Your task to perform on an android device: Is it going to rain this weekend? Image 0: 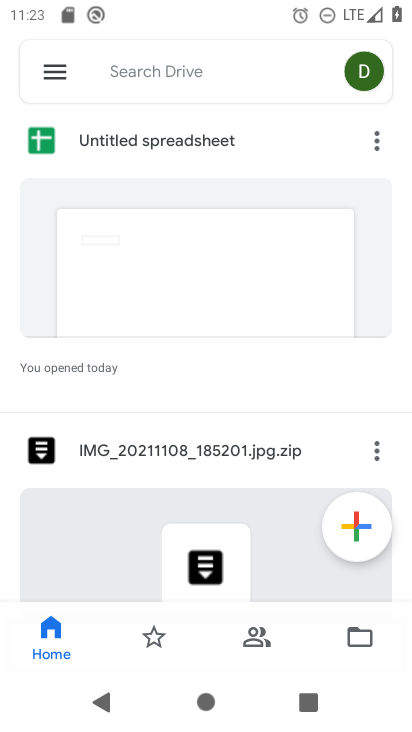
Step 0: press home button
Your task to perform on an android device: Is it going to rain this weekend? Image 1: 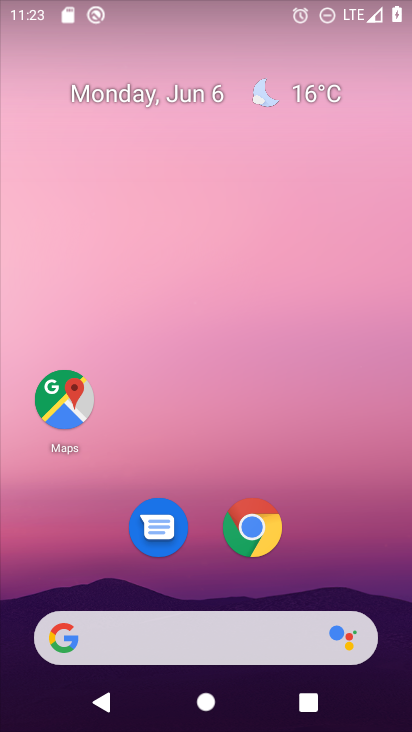
Step 1: drag from (356, 548) to (364, 192)
Your task to perform on an android device: Is it going to rain this weekend? Image 2: 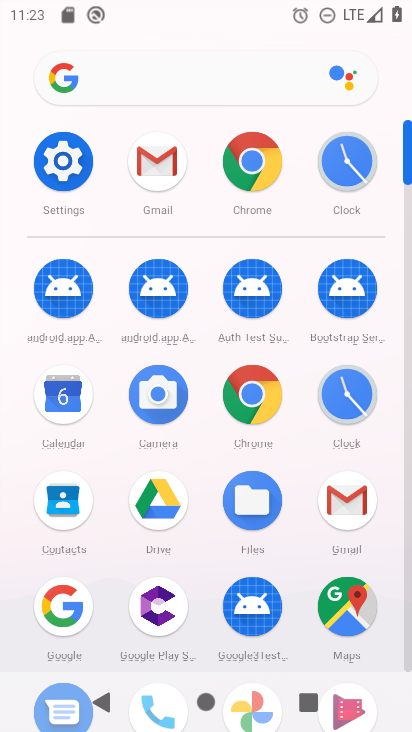
Step 2: click (215, 88)
Your task to perform on an android device: Is it going to rain this weekend? Image 3: 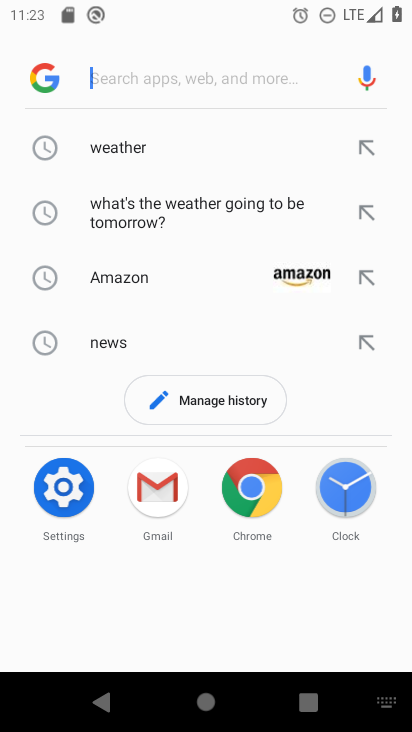
Step 3: click (144, 154)
Your task to perform on an android device: Is it going to rain this weekend? Image 4: 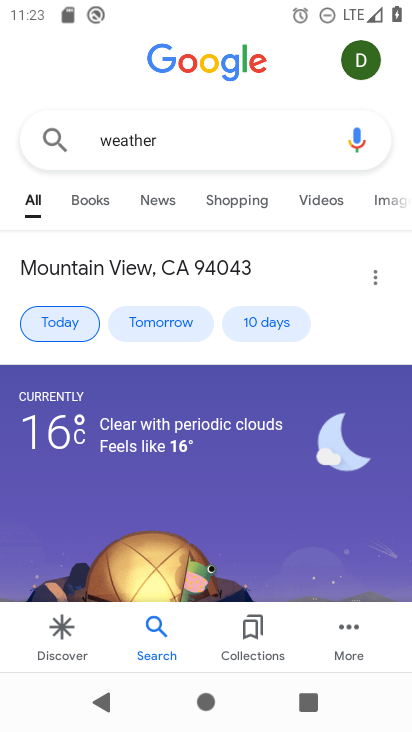
Step 4: click (285, 336)
Your task to perform on an android device: Is it going to rain this weekend? Image 5: 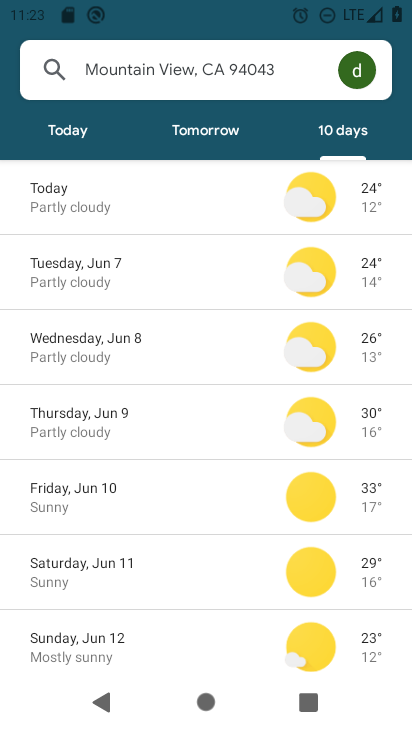
Step 5: drag from (223, 470) to (209, 291)
Your task to perform on an android device: Is it going to rain this weekend? Image 6: 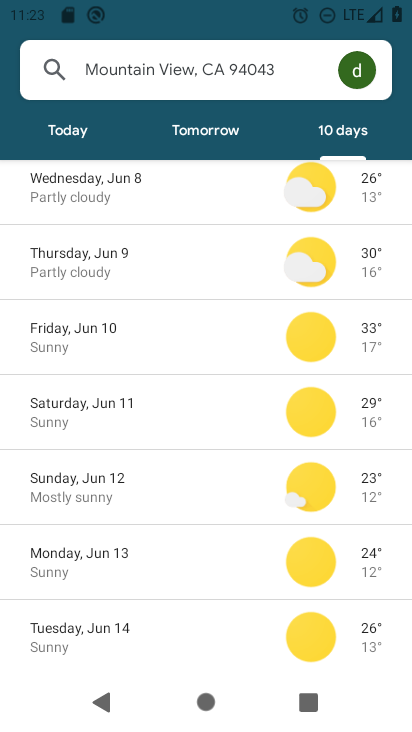
Step 6: drag from (196, 502) to (201, 320)
Your task to perform on an android device: Is it going to rain this weekend? Image 7: 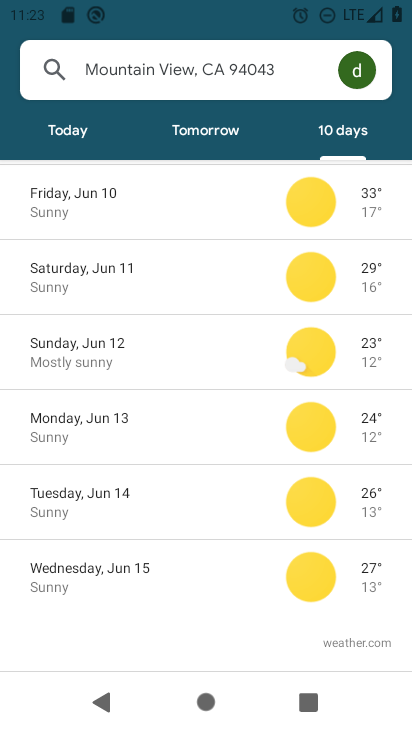
Step 7: click (131, 285)
Your task to perform on an android device: Is it going to rain this weekend? Image 8: 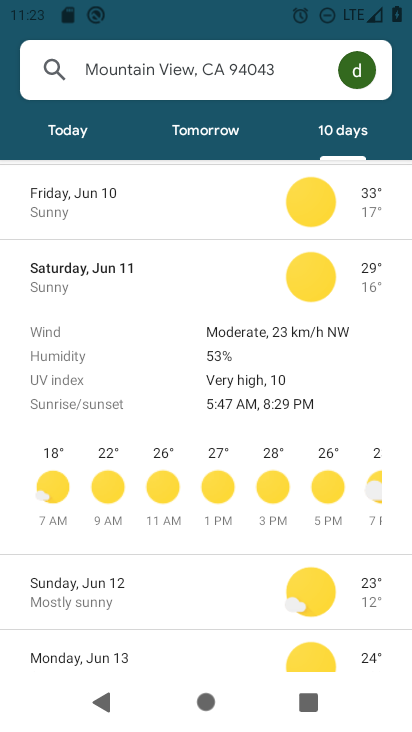
Step 8: task complete